Your task to perform on an android device: Open calendar and show me the third week of next month Image 0: 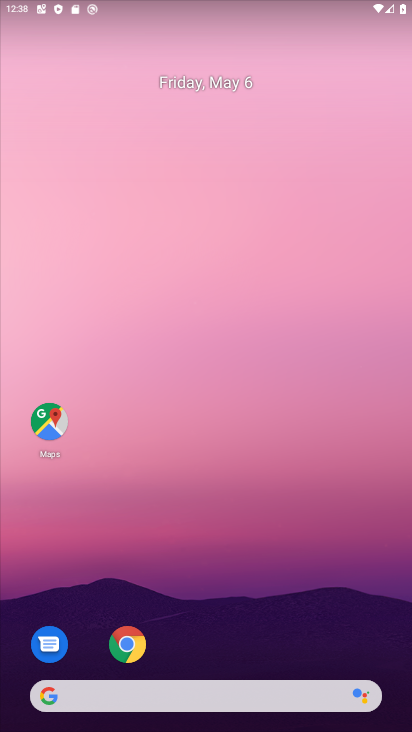
Step 0: drag from (253, 541) to (302, 100)
Your task to perform on an android device: Open calendar and show me the third week of next month Image 1: 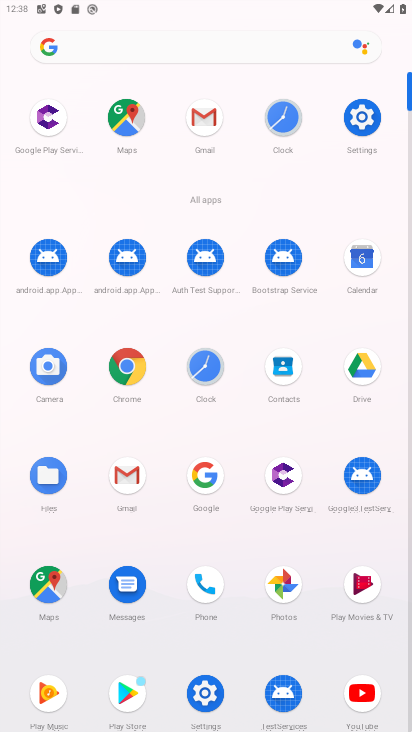
Step 1: click (359, 255)
Your task to perform on an android device: Open calendar and show me the third week of next month Image 2: 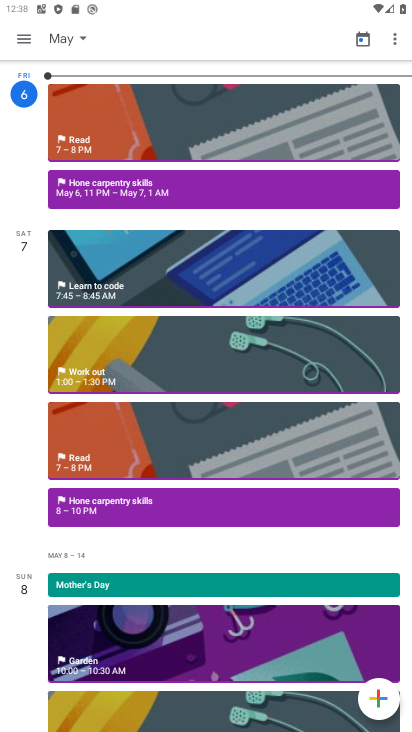
Step 2: click (59, 46)
Your task to perform on an android device: Open calendar and show me the third week of next month Image 3: 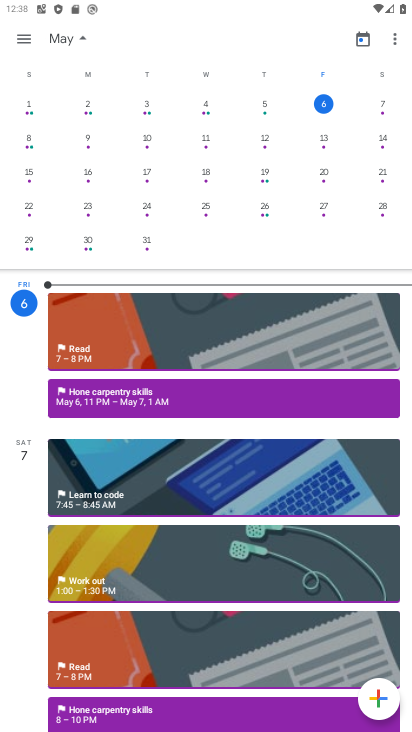
Step 3: drag from (278, 122) to (45, 287)
Your task to perform on an android device: Open calendar and show me the third week of next month Image 4: 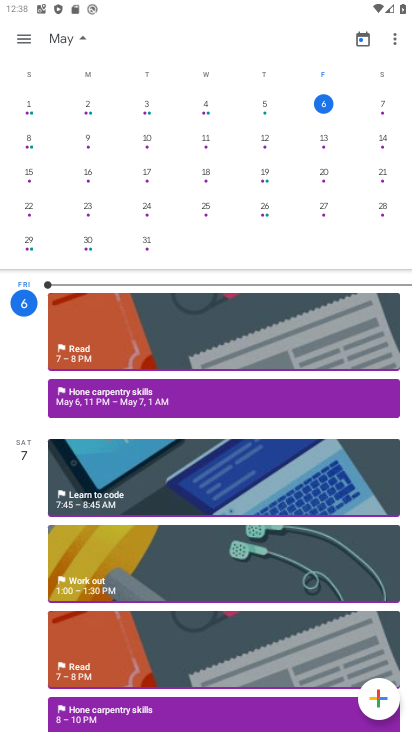
Step 4: drag from (352, 152) to (47, 137)
Your task to perform on an android device: Open calendar and show me the third week of next month Image 5: 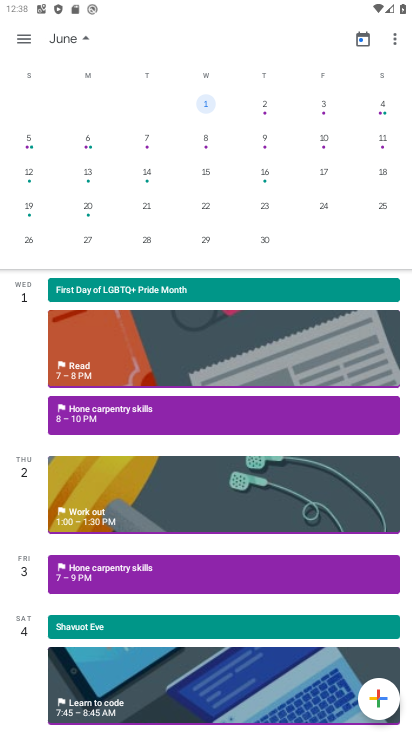
Step 5: click (27, 175)
Your task to perform on an android device: Open calendar and show me the third week of next month Image 6: 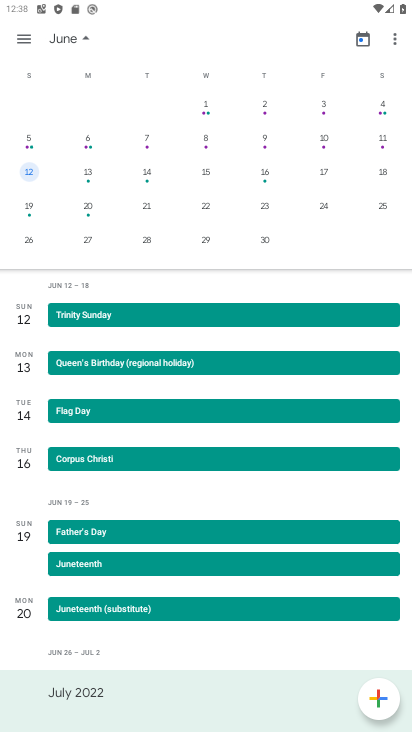
Step 6: task complete